Your task to perform on an android device: open app "eBay: The shopping marketplace" Image 0: 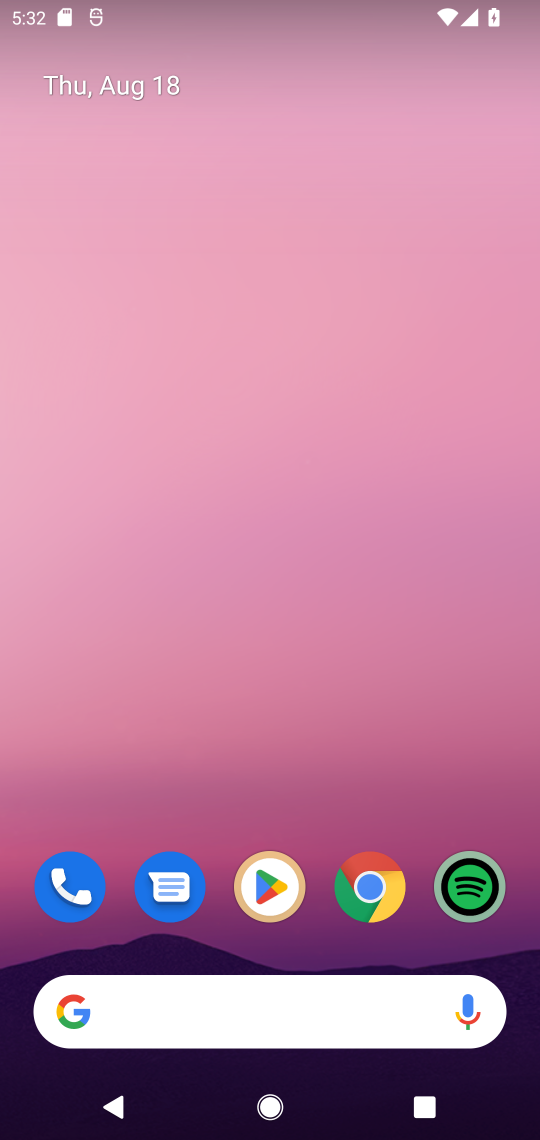
Step 0: click (271, 894)
Your task to perform on an android device: open app "eBay: The shopping marketplace" Image 1: 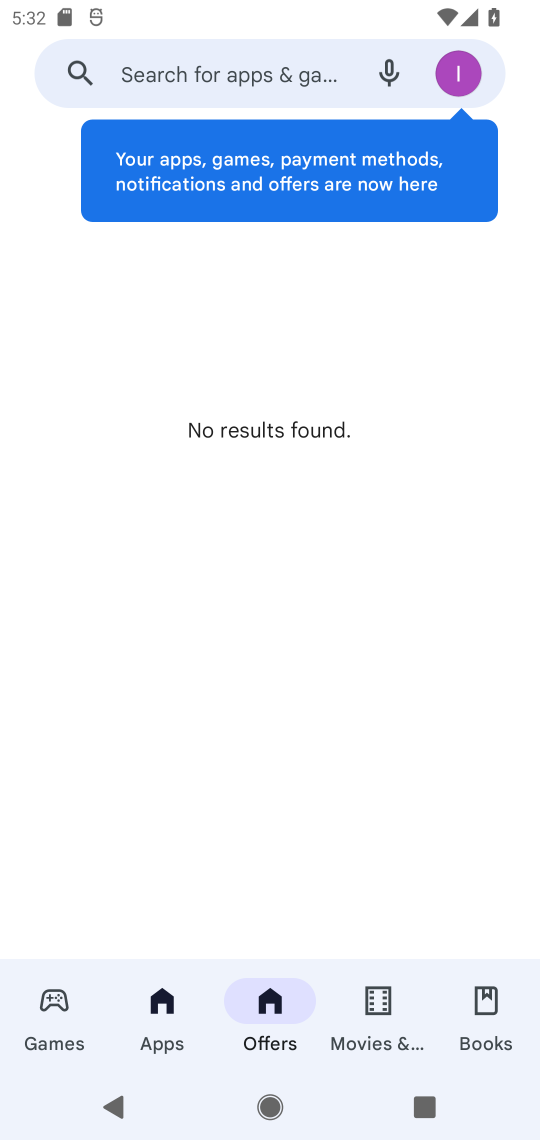
Step 1: click (248, 97)
Your task to perform on an android device: open app "eBay: The shopping marketplace" Image 2: 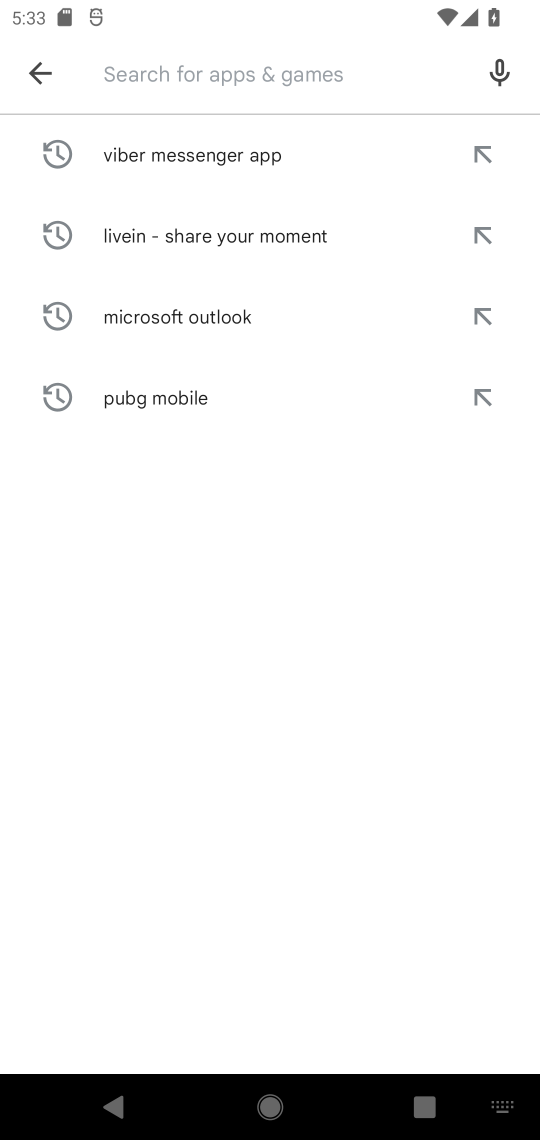
Step 2: type "eBay: The shopping marketplace"
Your task to perform on an android device: open app "eBay: The shopping marketplace" Image 3: 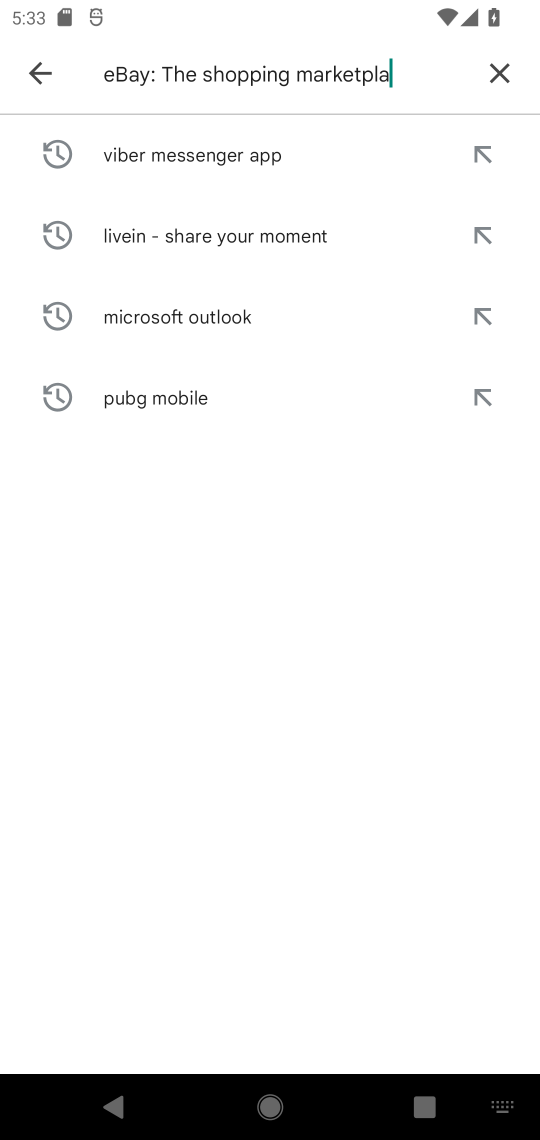
Step 3: type ""
Your task to perform on an android device: open app "eBay: The shopping marketplace" Image 4: 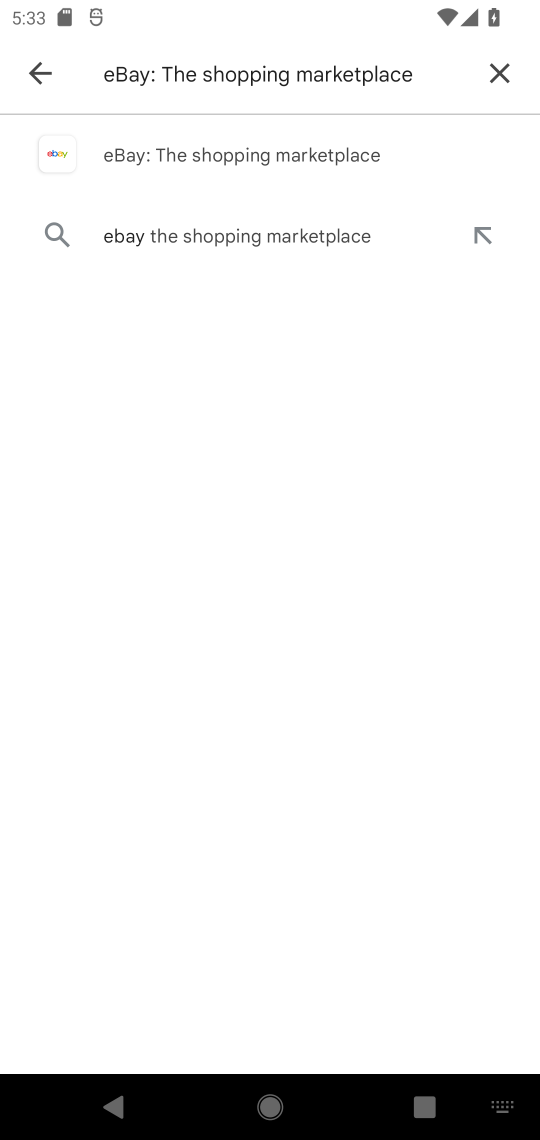
Step 4: click (203, 153)
Your task to perform on an android device: open app "eBay: The shopping marketplace" Image 5: 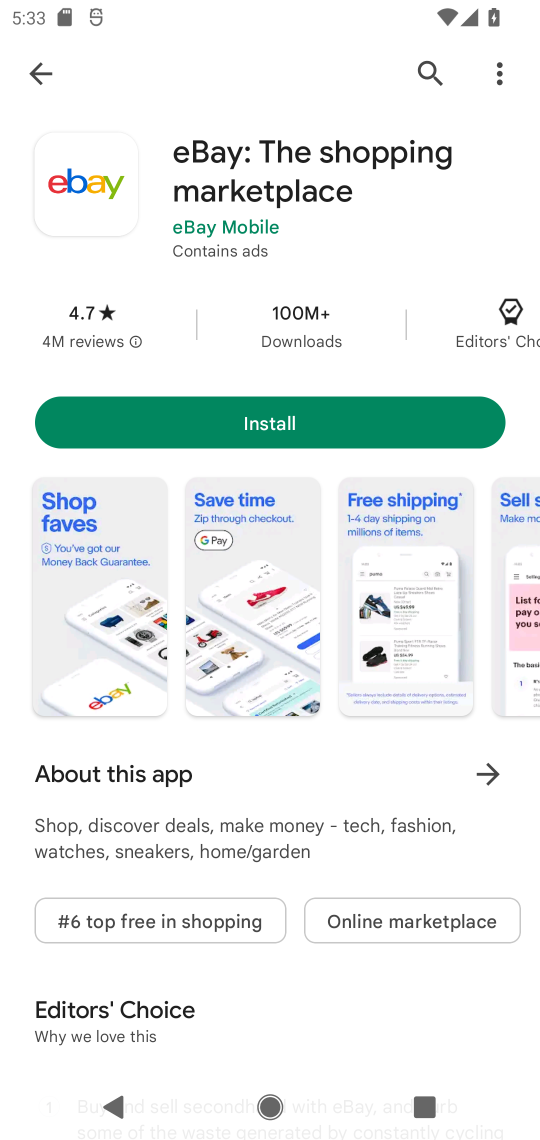
Step 5: click (253, 431)
Your task to perform on an android device: open app "eBay: The shopping marketplace" Image 6: 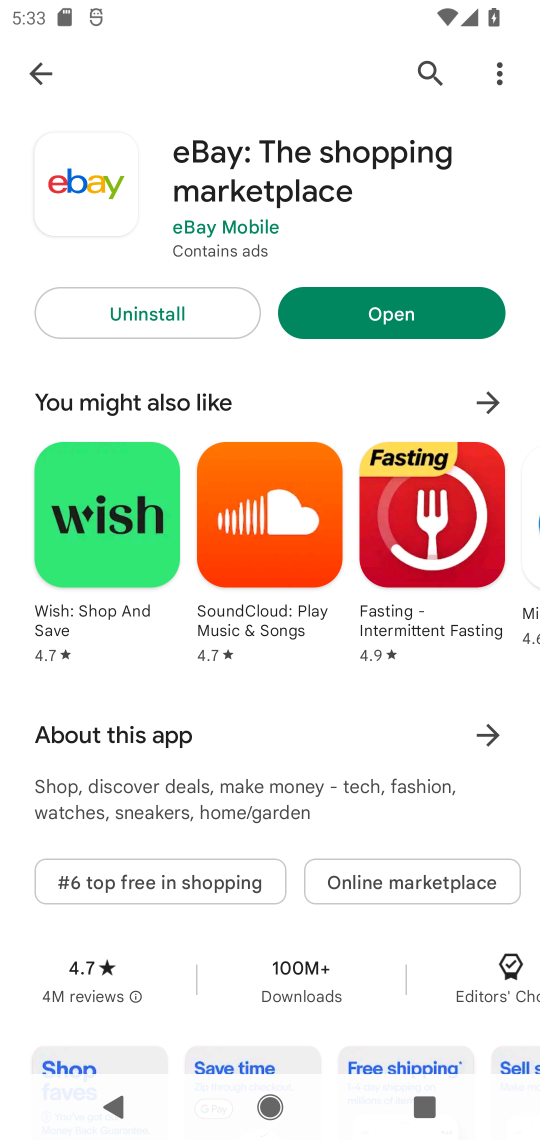
Step 6: click (388, 310)
Your task to perform on an android device: open app "eBay: The shopping marketplace" Image 7: 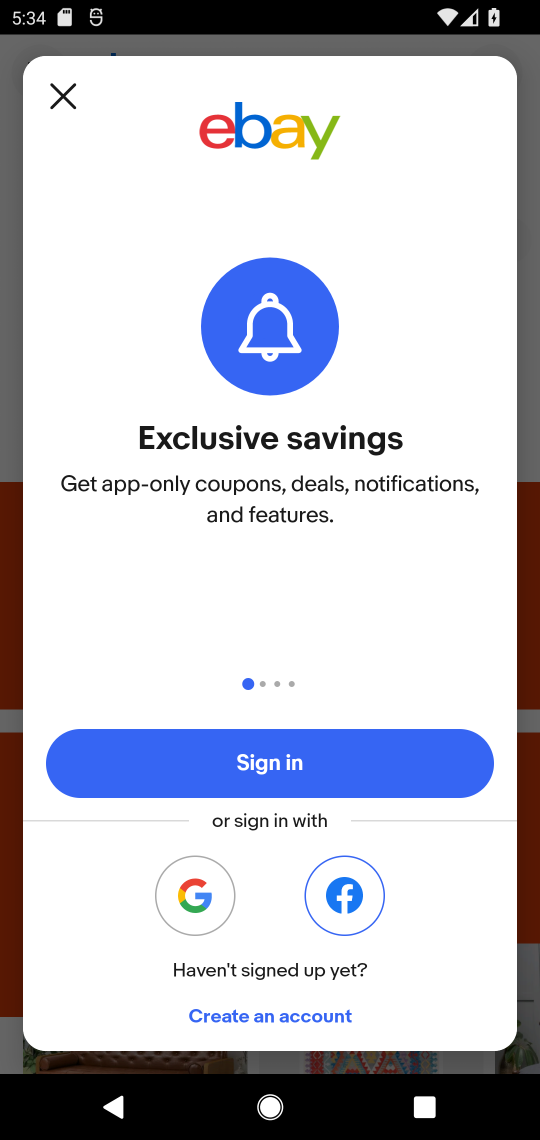
Step 7: task complete